Your task to perform on an android device: set an alarm Image 0: 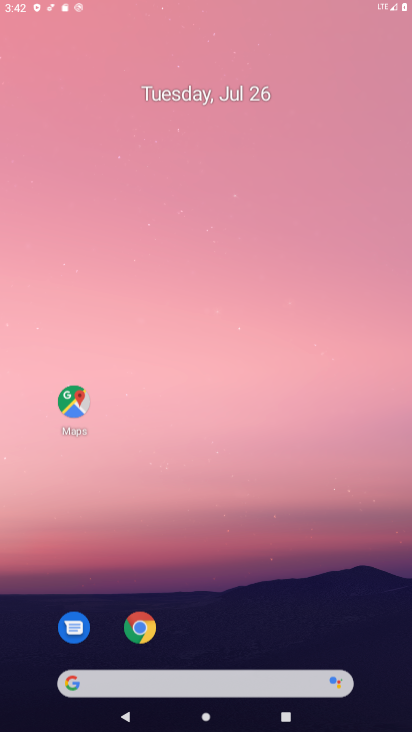
Step 0: drag from (4, 264) to (377, 299)
Your task to perform on an android device: set an alarm Image 1: 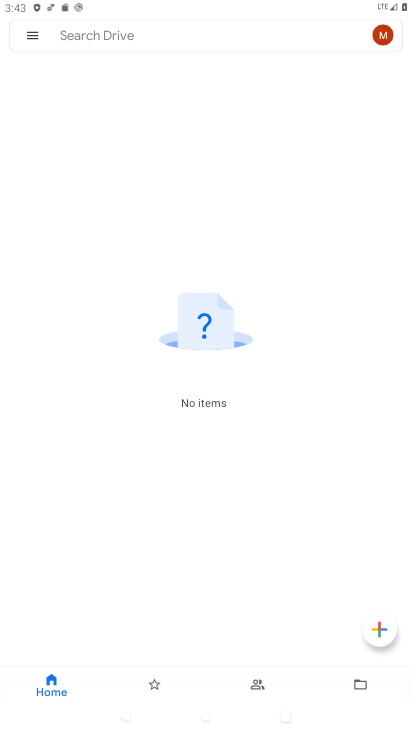
Step 1: press home button
Your task to perform on an android device: set an alarm Image 2: 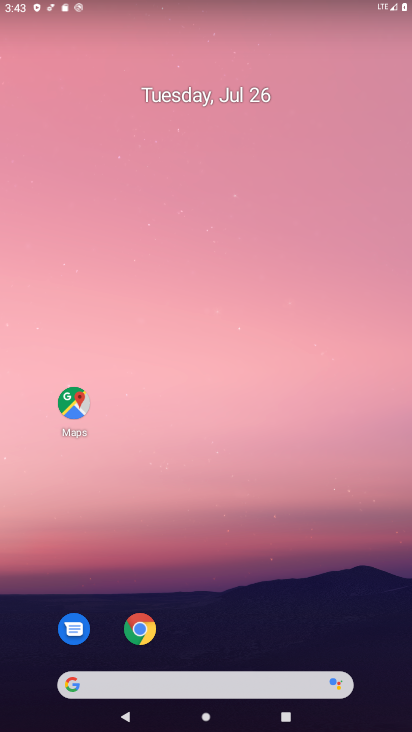
Step 2: drag from (225, 694) to (243, 120)
Your task to perform on an android device: set an alarm Image 3: 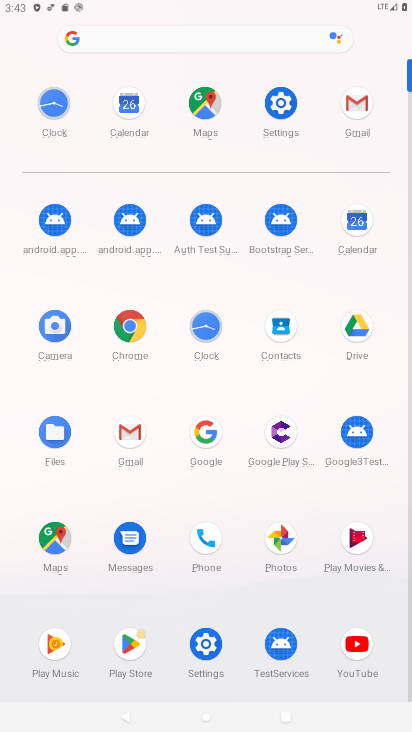
Step 3: click (205, 325)
Your task to perform on an android device: set an alarm Image 4: 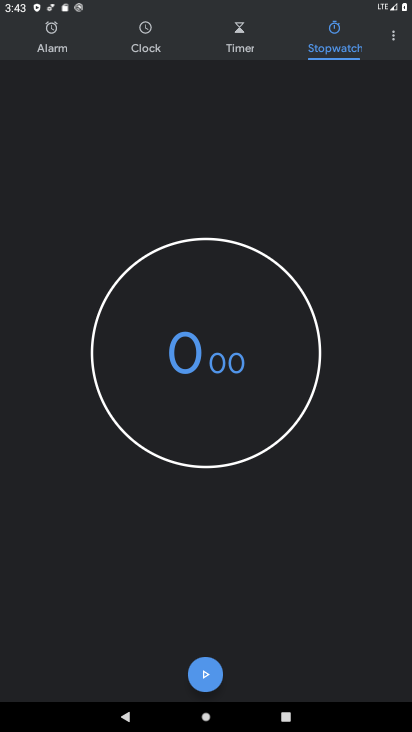
Step 4: click (49, 42)
Your task to perform on an android device: set an alarm Image 5: 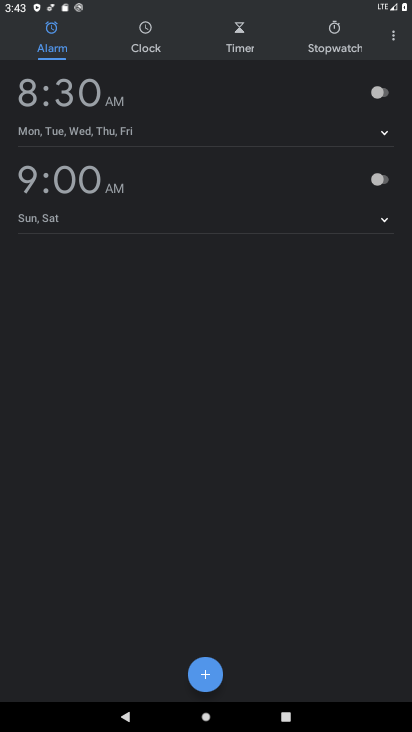
Step 5: click (206, 675)
Your task to perform on an android device: set an alarm Image 6: 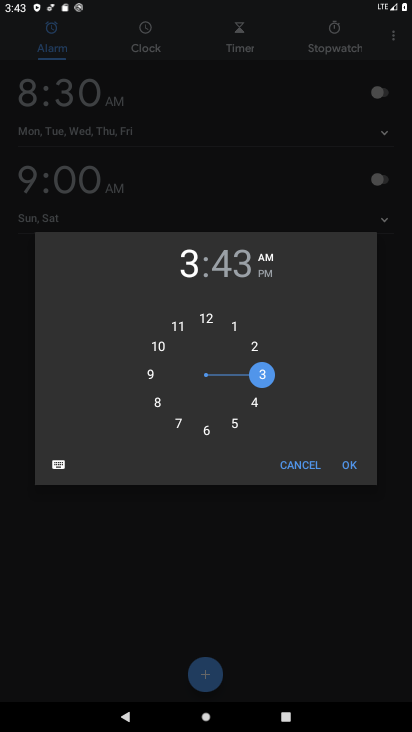
Step 6: click (210, 423)
Your task to perform on an android device: set an alarm Image 7: 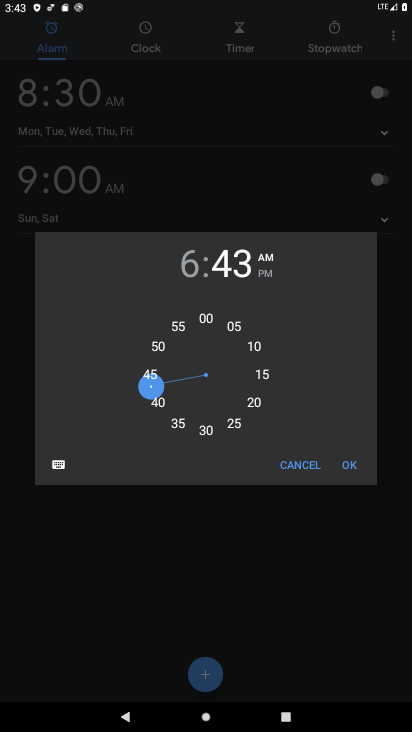
Step 7: click (356, 466)
Your task to perform on an android device: set an alarm Image 8: 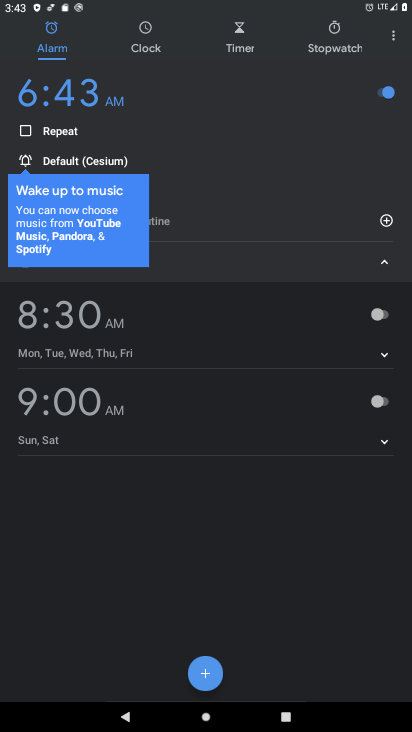
Step 8: task complete